Your task to perform on an android device: change the clock display to digital Image 0: 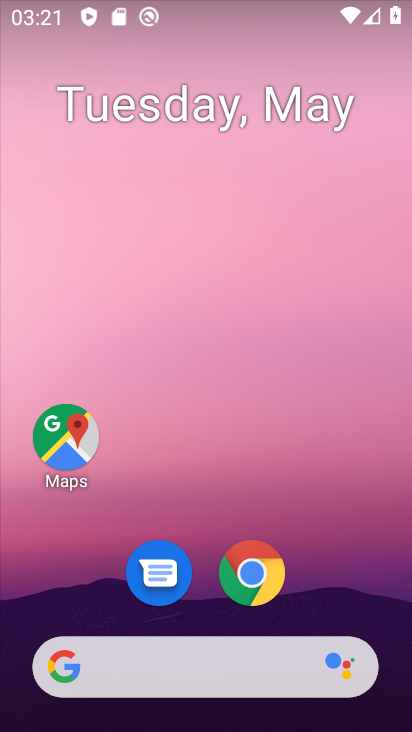
Step 0: drag from (230, 536) to (294, 63)
Your task to perform on an android device: change the clock display to digital Image 1: 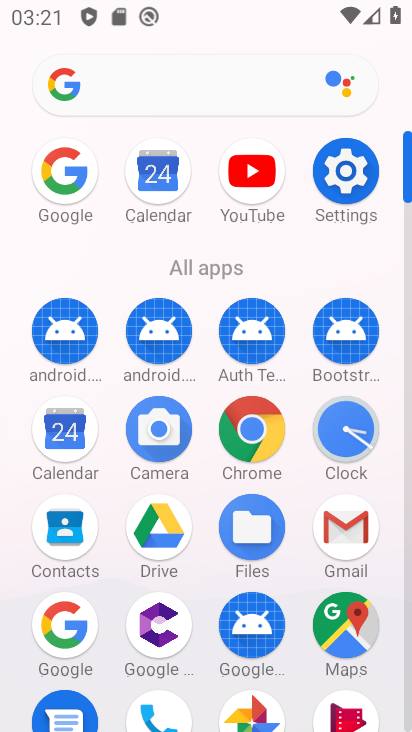
Step 1: click (336, 422)
Your task to perform on an android device: change the clock display to digital Image 2: 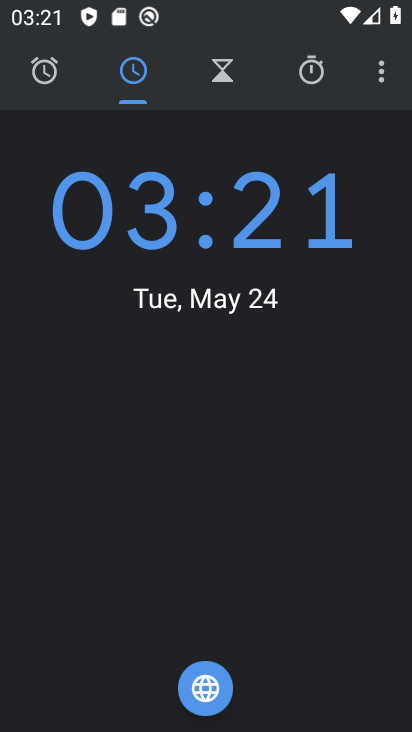
Step 2: click (386, 66)
Your task to perform on an android device: change the clock display to digital Image 3: 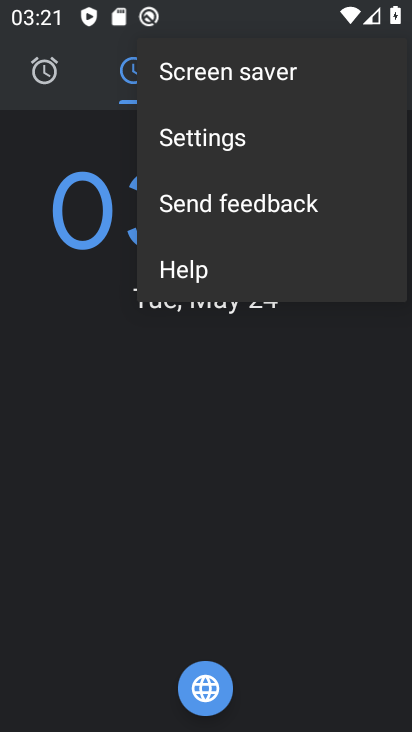
Step 3: click (243, 134)
Your task to perform on an android device: change the clock display to digital Image 4: 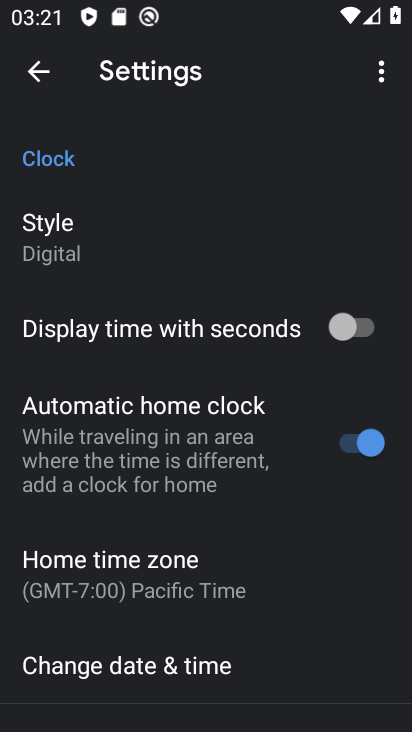
Step 4: task complete